Your task to perform on an android device: Do I have any events today? Image 0: 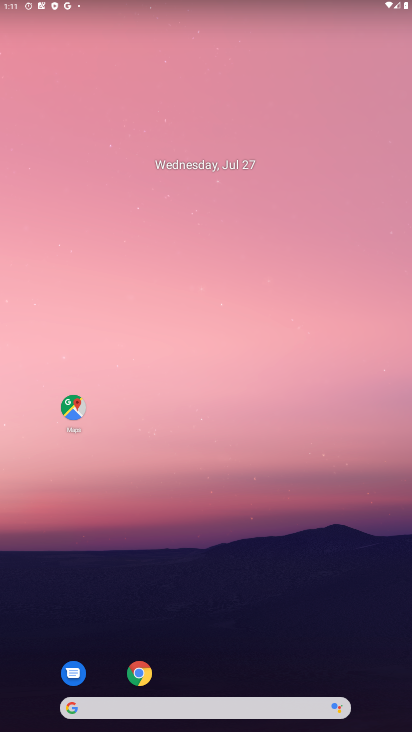
Step 0: drag from (202, 695) to (203, 102)
Your task to perform on an android device: Do I have any events today? Image 1: 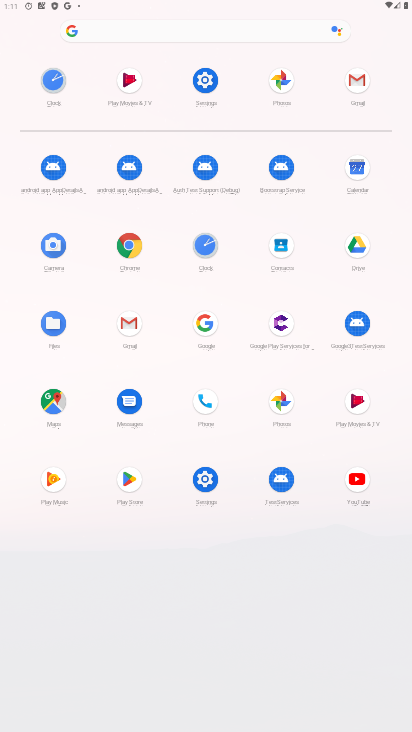
Step 1: click (356, 169)
Your task to perform on an android device: Do I have any events today? Image 2: 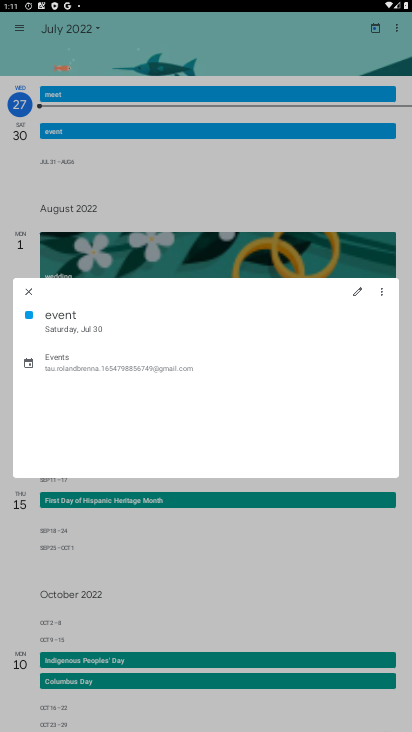
Step 2: click (29, 291)
Your task to perform on an android device: Do I have any events today? Image 3: 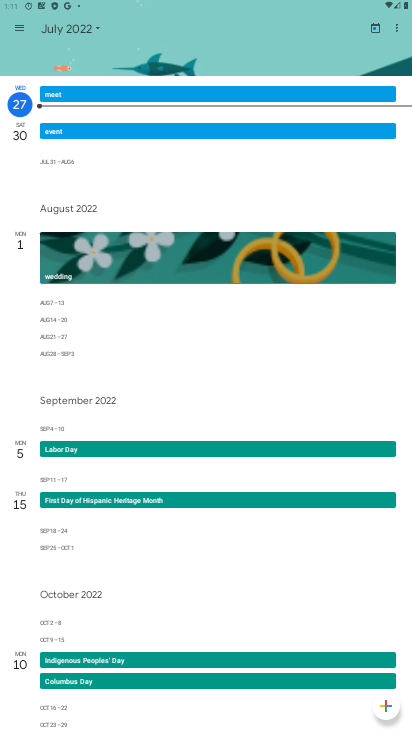
Step 3: click (41, 100)
Your task to perform on an android device: Do I have any events today? Image 4: 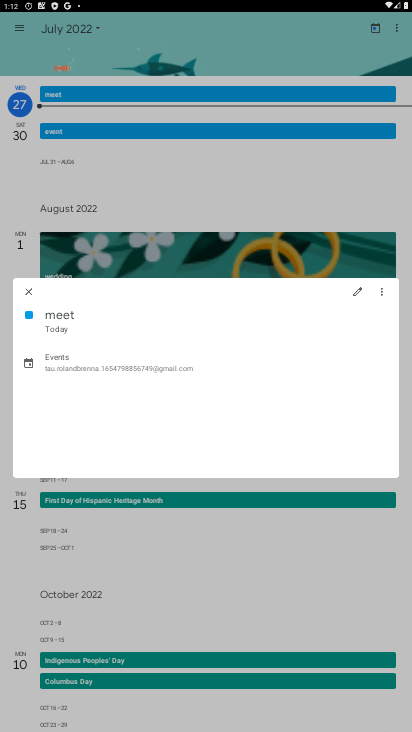
Step 4: task complete